Your task to perform on an android device: open app "Spotify: Music and Podcasts" (install if not already installed) and go to login screen Image 0: 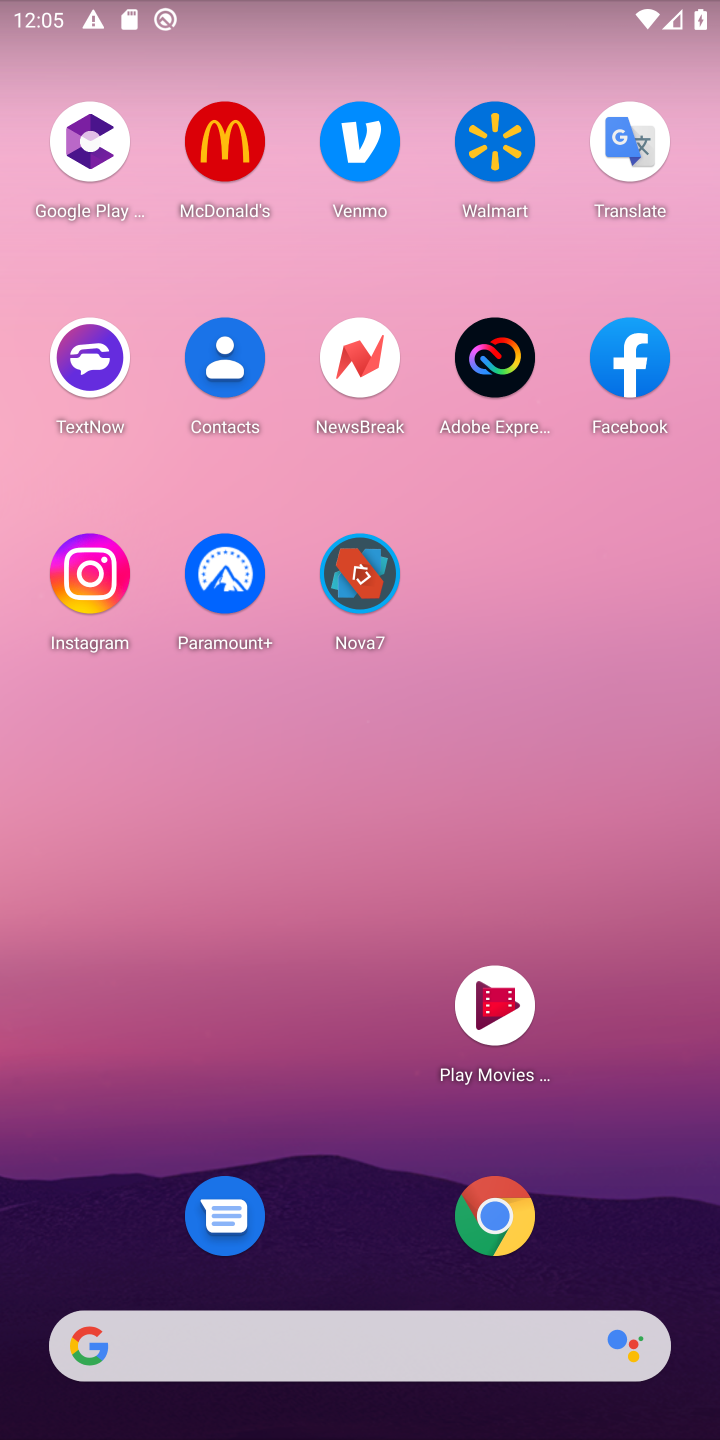
Step 0: drag from (644, 1107) to (593, 447)
Your task to perform on an android device: open app "Spotify: Music and Podcasts" (install if not already installed) and go to login screen Image 1: 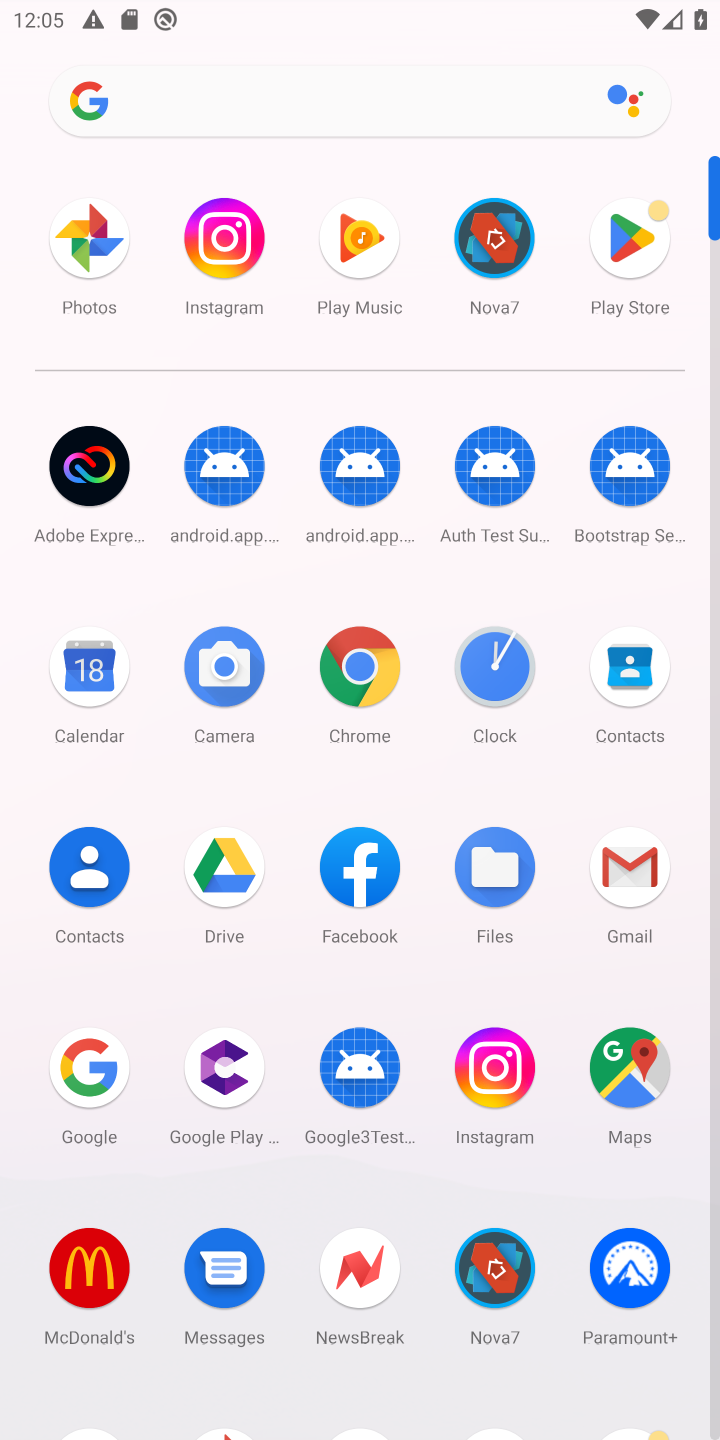
Step 1: click (633, 266)
Your task to perform on an android device: open app "Spotify: Music and Podcasts" (install if not already installed) and go to login screen Image 2: 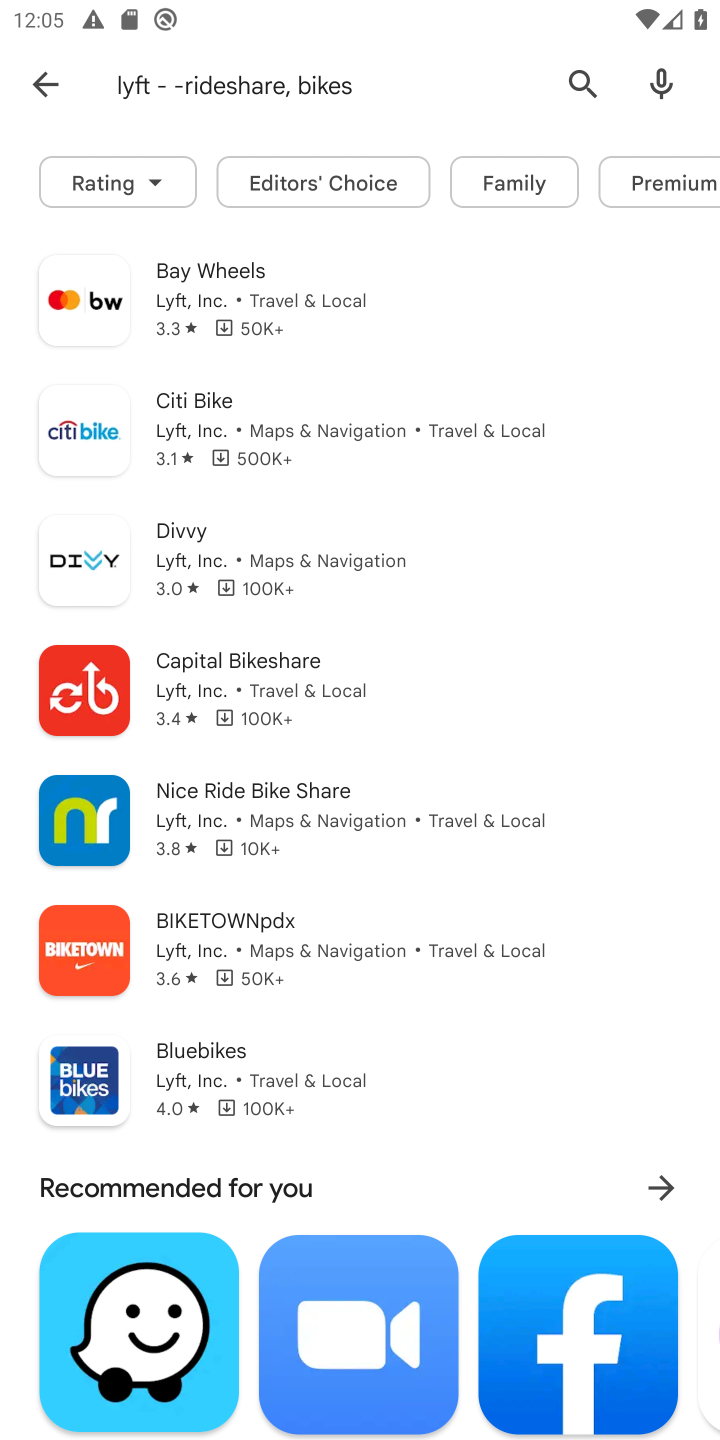
Step 2: click (575, 95)
Your task to perform on an android device: open app "Spotify: Music and Podcasts" (install if not already installed) and go to login screen Image 3: 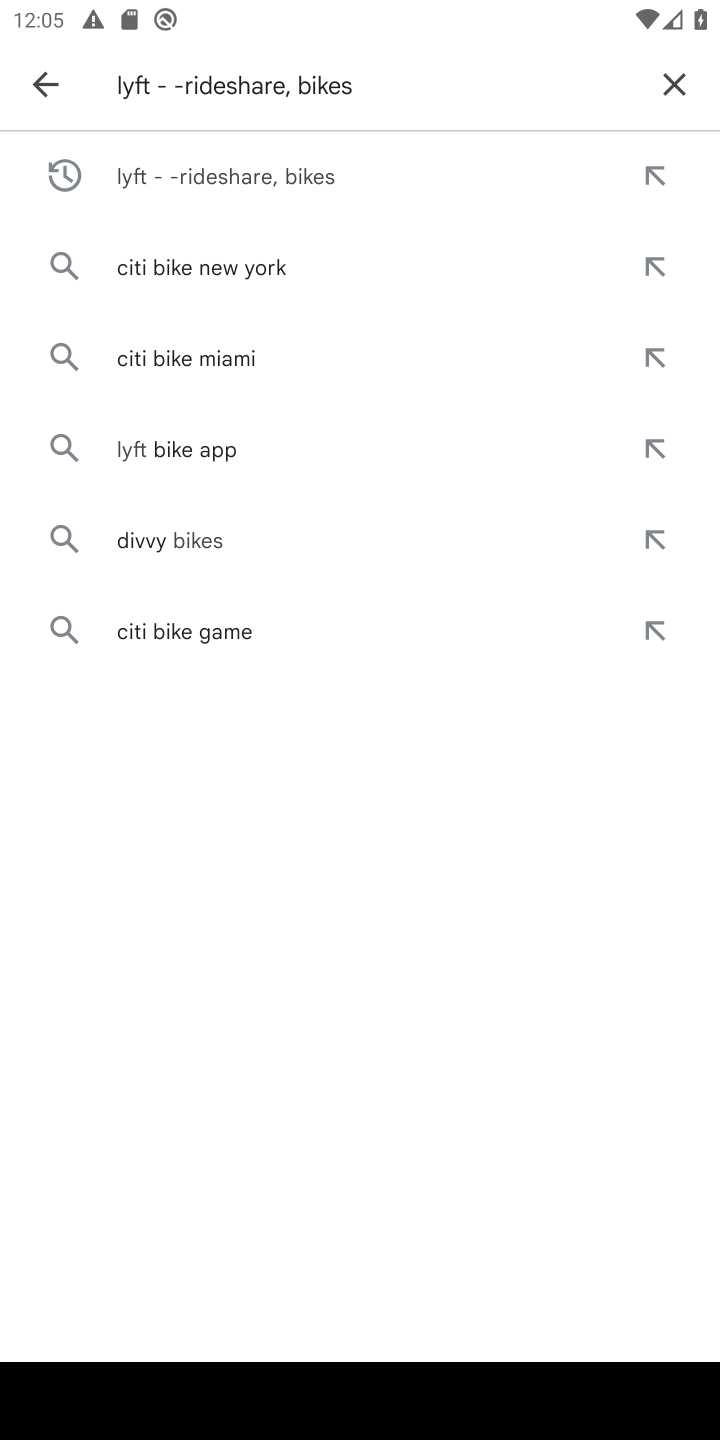
Step 3: click (675, 88)
Your task to perform on an android device: open app "Spotify: Music and Podcasts" (install if not already installed) and go to login screen Image 4: 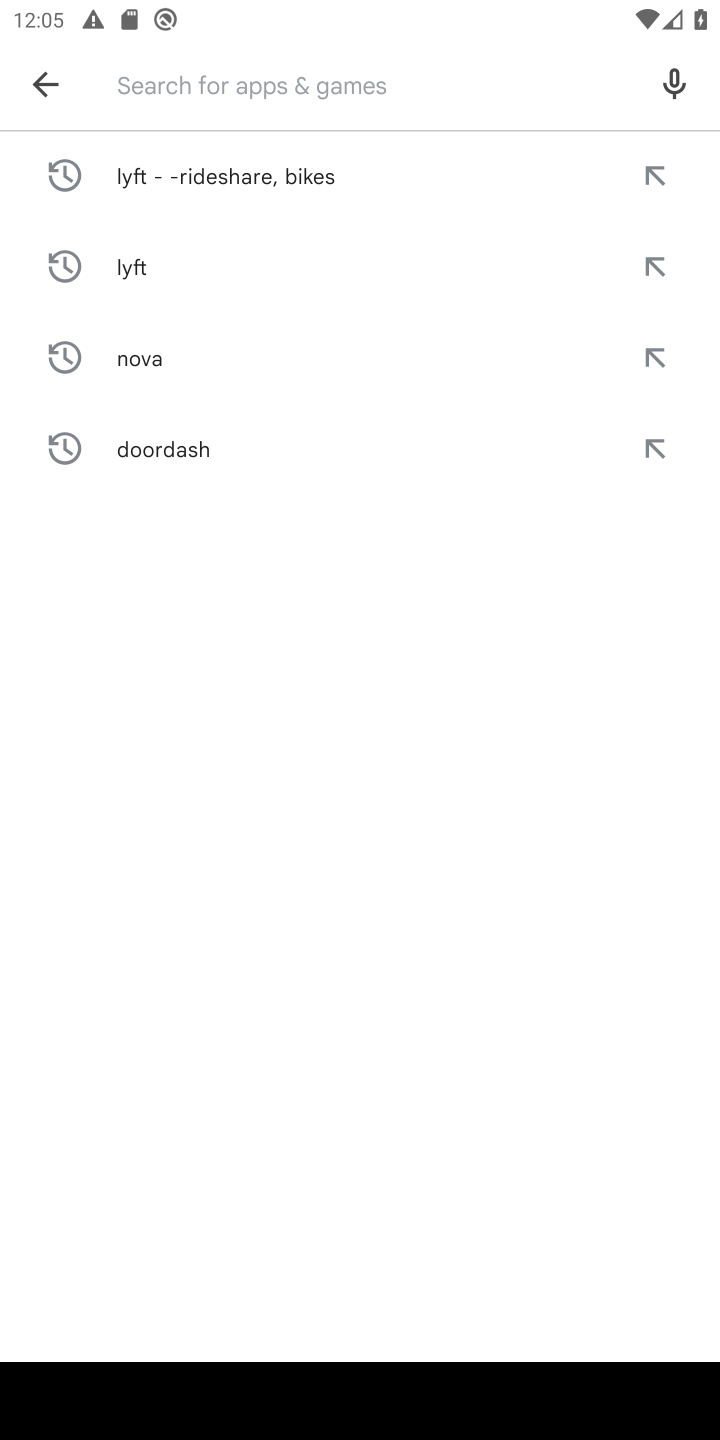
Step 4: type "spotify"
Your task to perform on an android device: open app "Spotify: Music and Podcasts" (install if not already installed) and go to login screen Image 5: 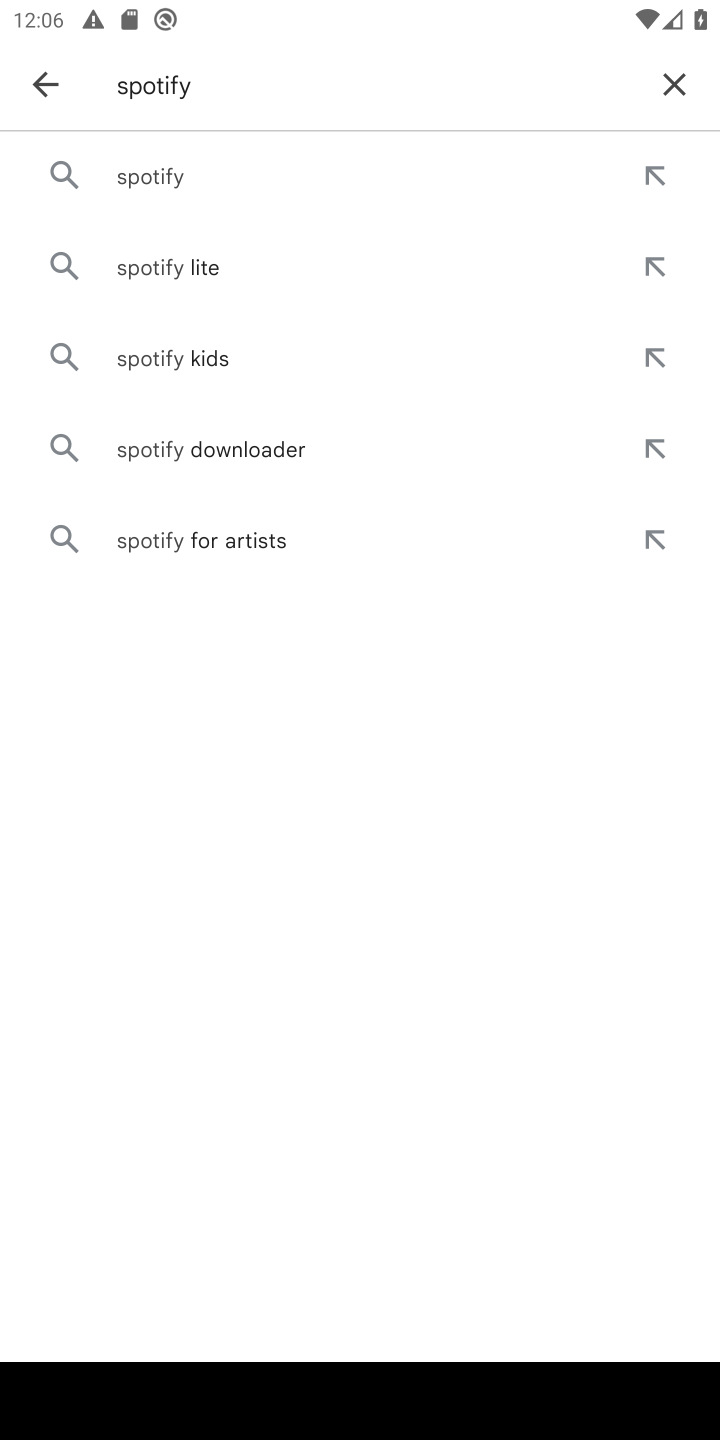
Step 5: click (132, 174)
Your task to perform on an android device: open app "Spotify: Music and Podcasts" (install if not already installed) and go to login screen Image 6: 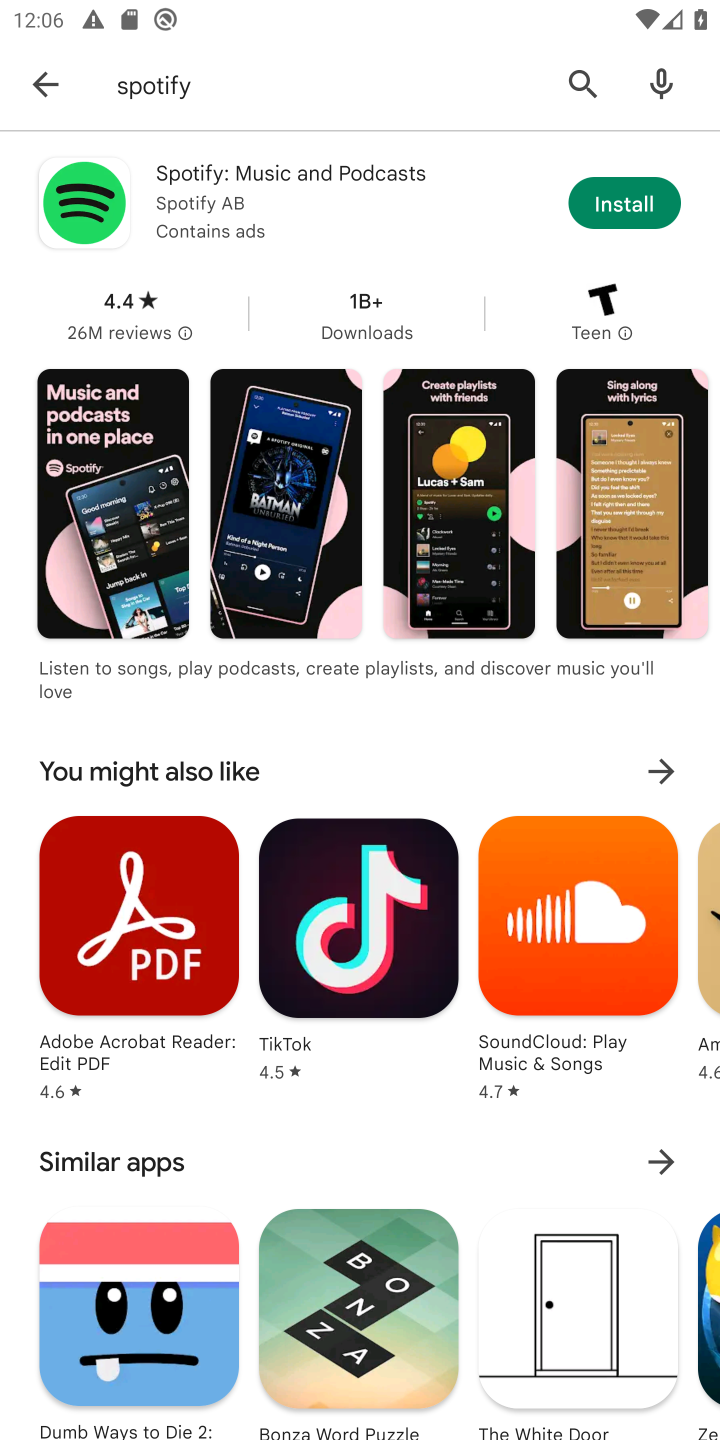
Step 6: click (330, 202)
Your task to perform on an android device: open app "Spotify: Music and Podcasts" (install if not already installed) and go to login screen Image 7: 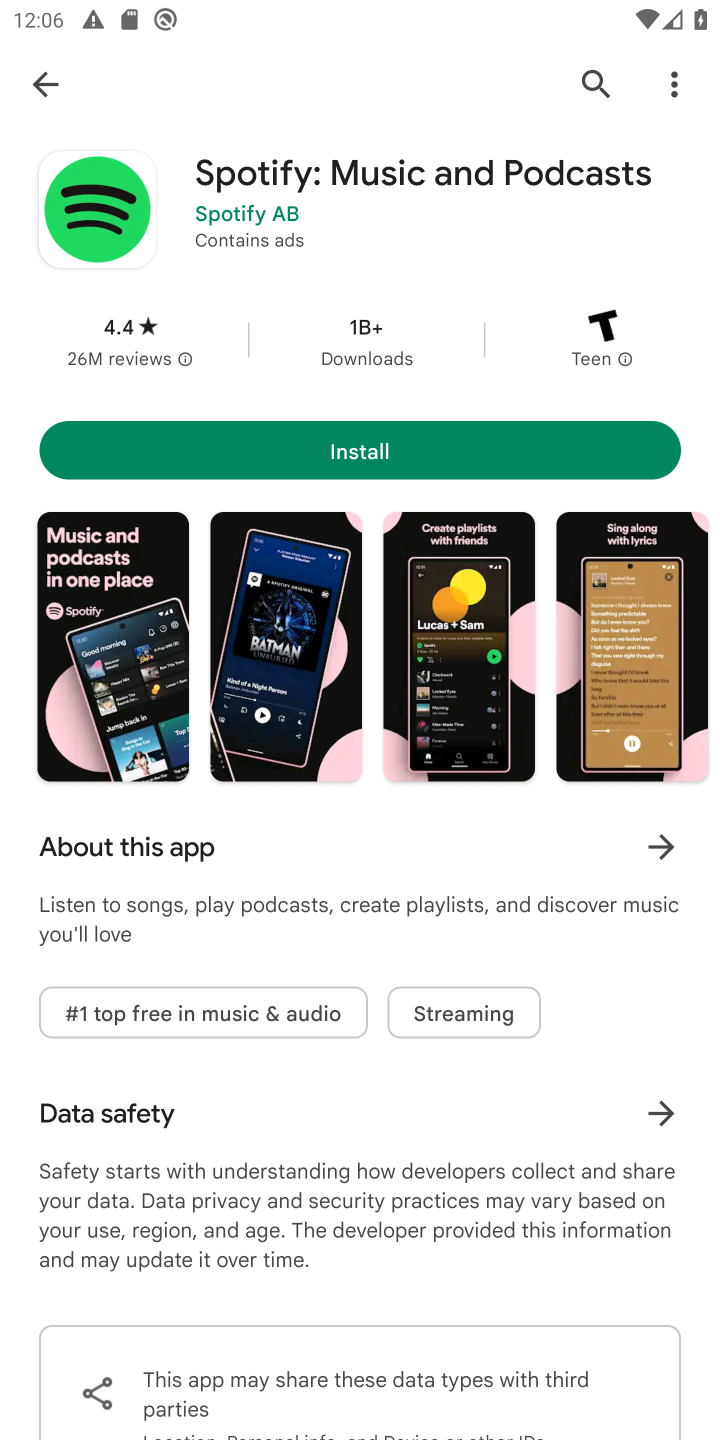
Step 7: click (431, 441)
Your task to perform on an android device: open app "Spotify: Music and Podcasts" (install if not already installed) and go to login screen Image 8: 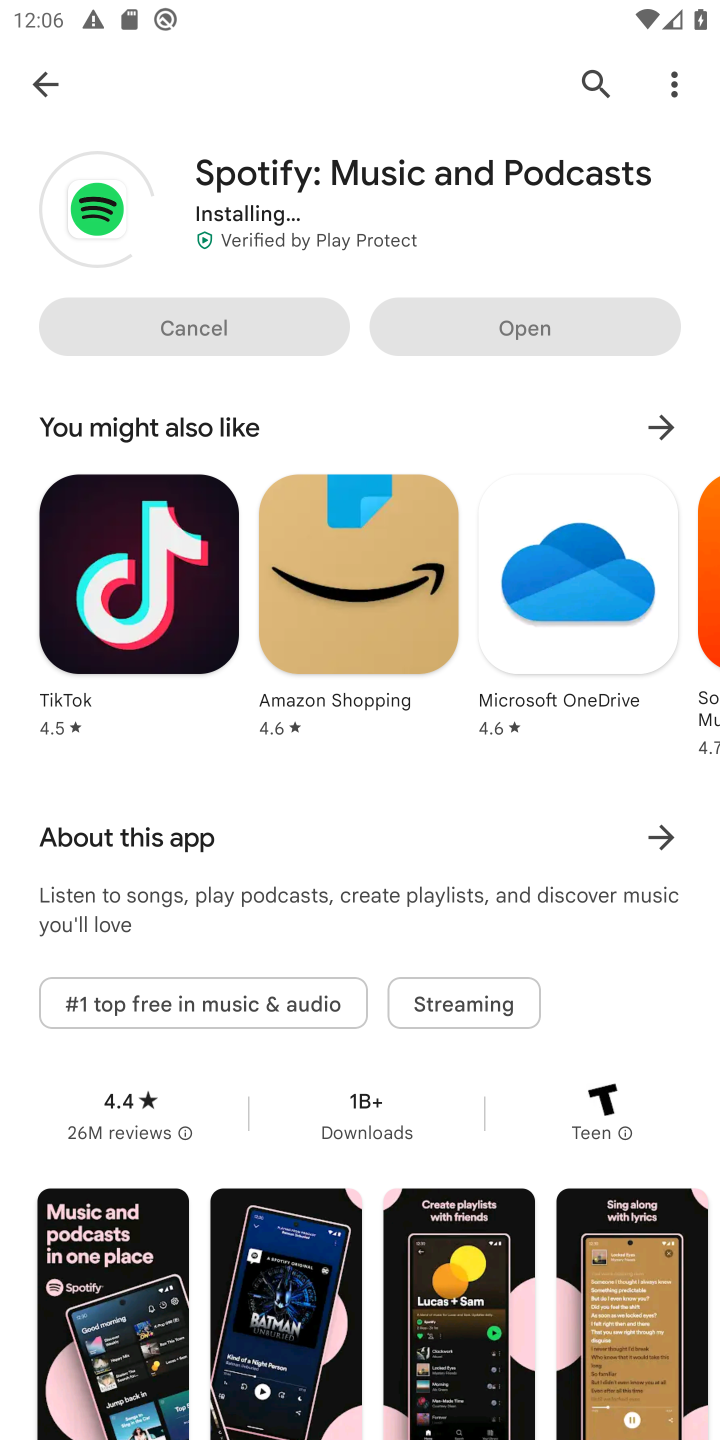
Step 8: click (454, 405)
Your task to perform on an android device: open app "Spotify: Music and Podcasts" (install if not already installed) and go to login screen Image 9: 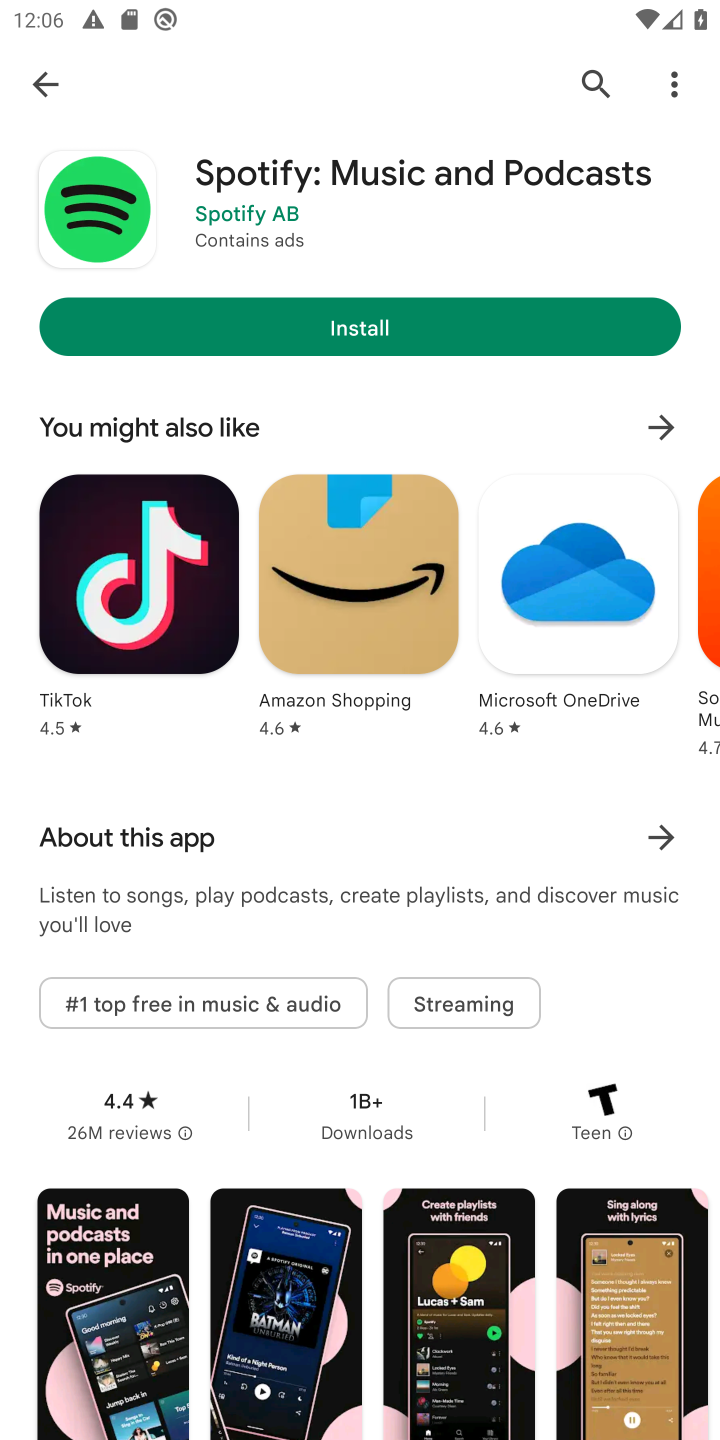
Step 9: click (499, 342)
Your task to perform on an android device: open app "Spotify: Music and Podcasts" (install if not already installed) and go to login screen Image 10: 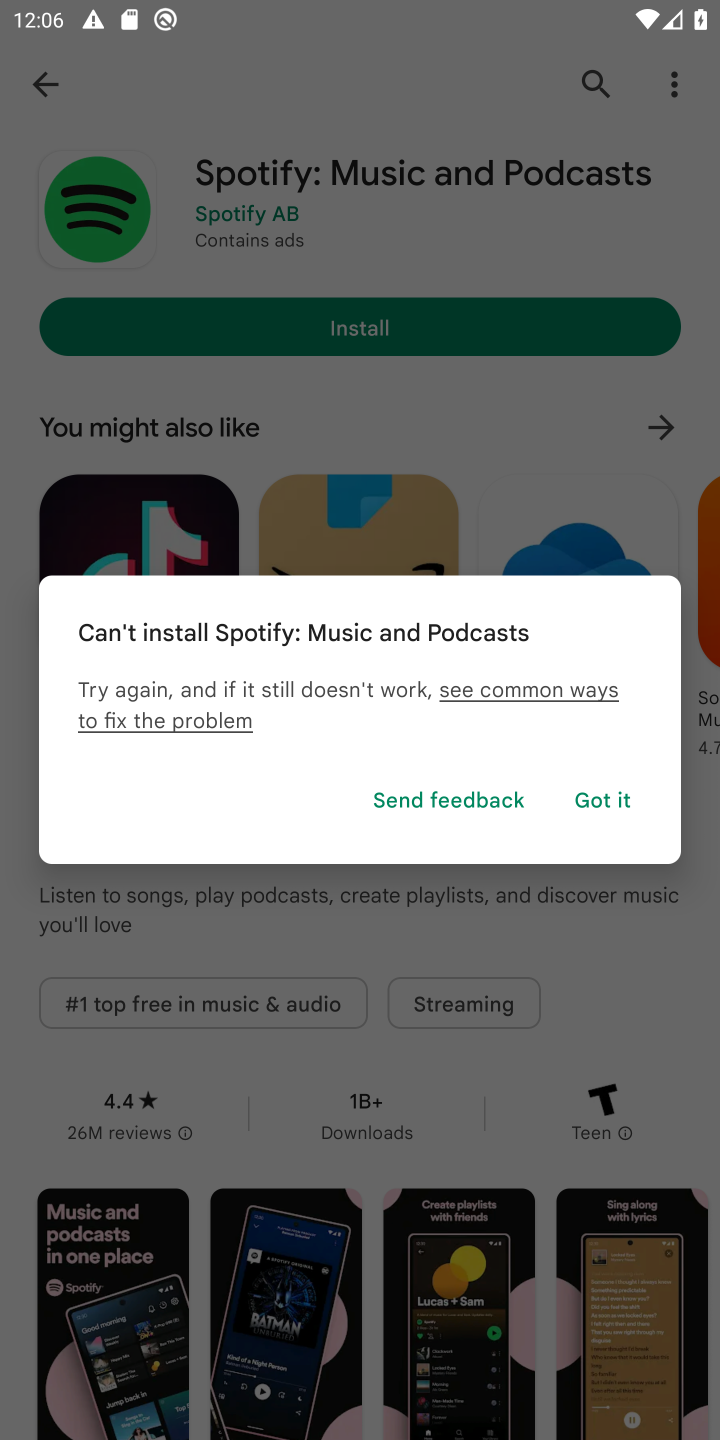
Step 10: click (639, 800)
Your task to perform on an android device: open app "Spotify: Music and Podcasts" (install if not already installed) and go to login screen Image 11: 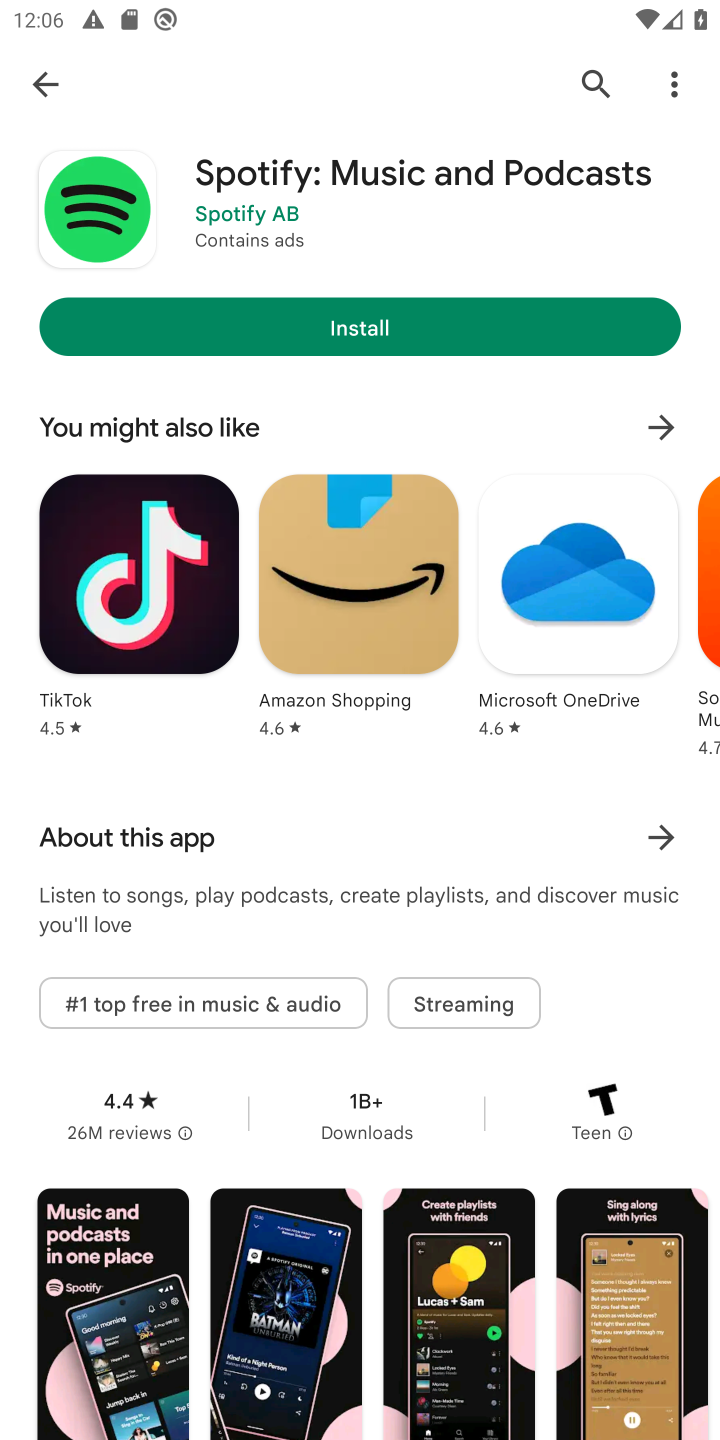
Step 11: task complete